Your task to perform on an android device: Go to wifi settings Image 0: 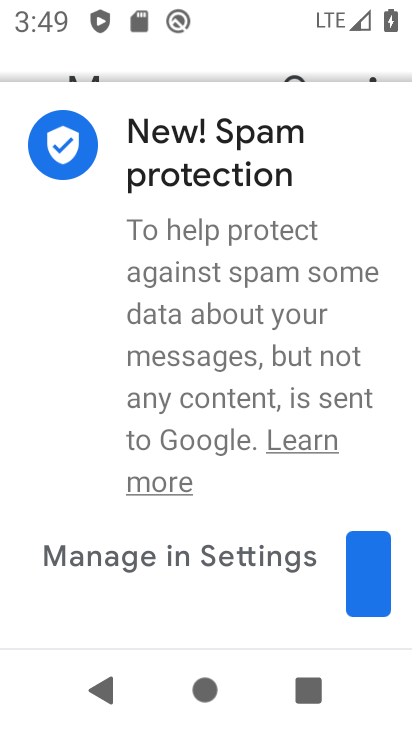
Step 0: press home button
Your task to perform on an android device: Go to wifi settings Image 1: 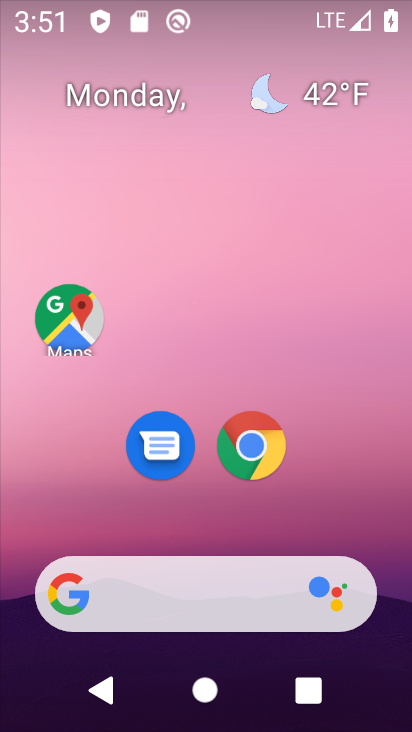
Step 1: drag from (7, 471) to (231, 41)
Your task to perform on an android device: Go to wifi settings Image 2: 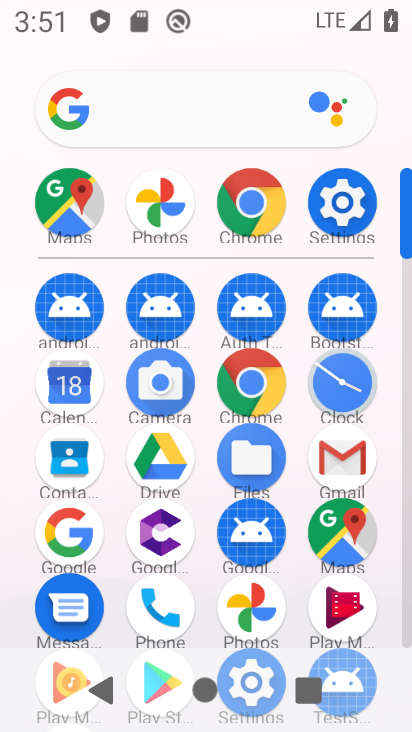
Step 2: click (359, 222)
Your task to perform on an android device: Go to wifi settings Image 3: 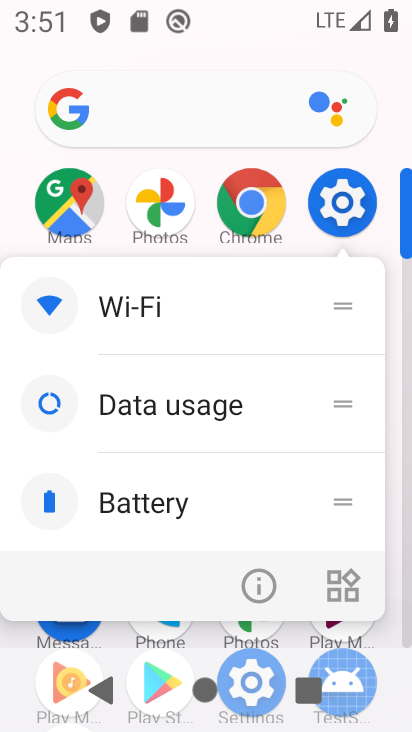
Step 3: click (342, 209)
Your task to perform on an android device: Go to wifi settings Image 4: 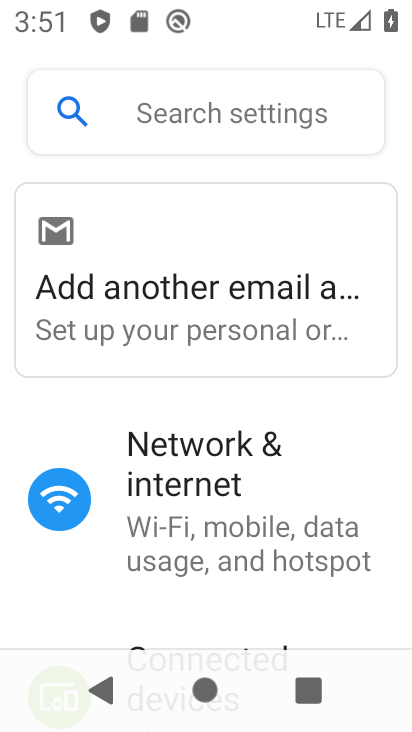
Step 4: click (186, 492)
Your task to perform on an android device: Go to wifi settings Image 5: 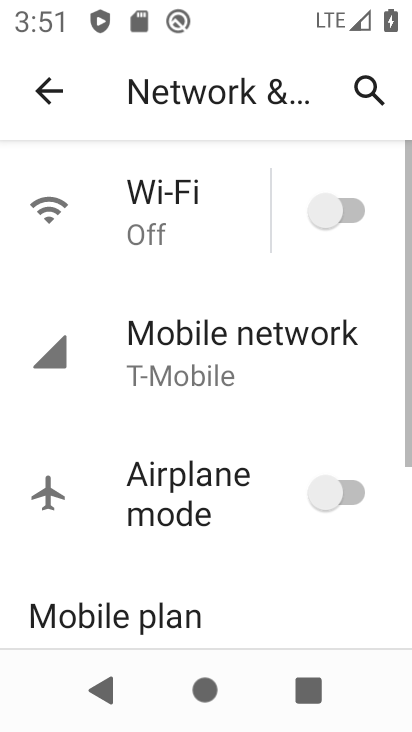
Step 5: click (163, 195)
Your task to perform on an android device: Go to wifi settings Image 6: 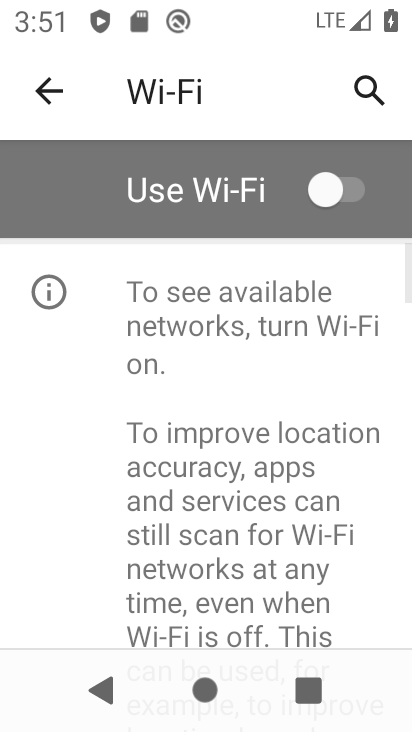
Step 6: task complete